Your task to perform on an android device: What's on my calendar today? Image 0: 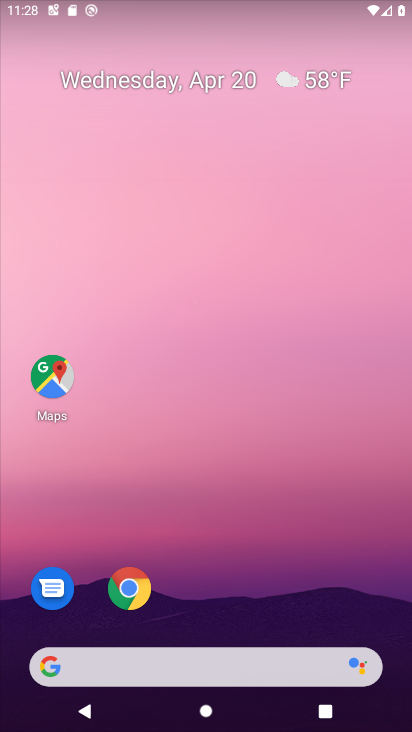
Step 0: click (215, 81)
Your task to perform on an android device: What's on my calendar today? Image 1: 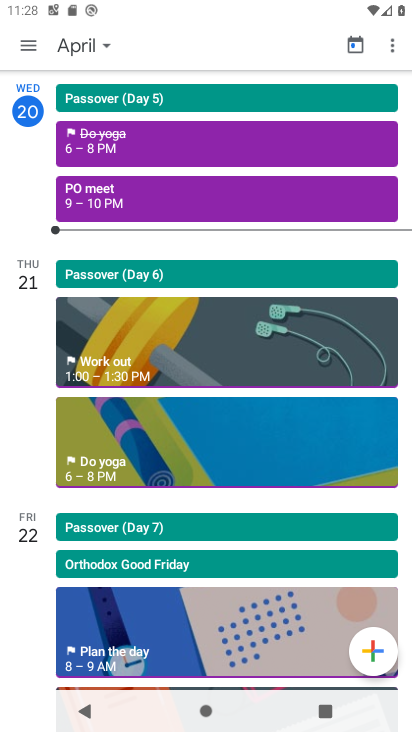
Step 1: task complete